Your task to perform on an android device: open sync settings in chrome Image 0: 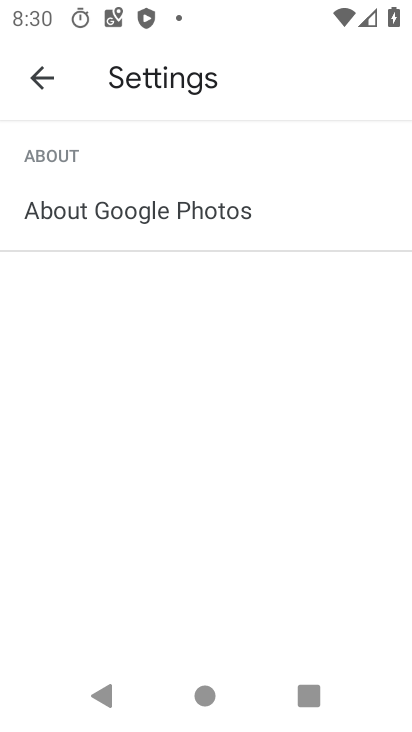
Step 0: press home button
Your task to perform on an android device: open sync settings in chrome Image 1: 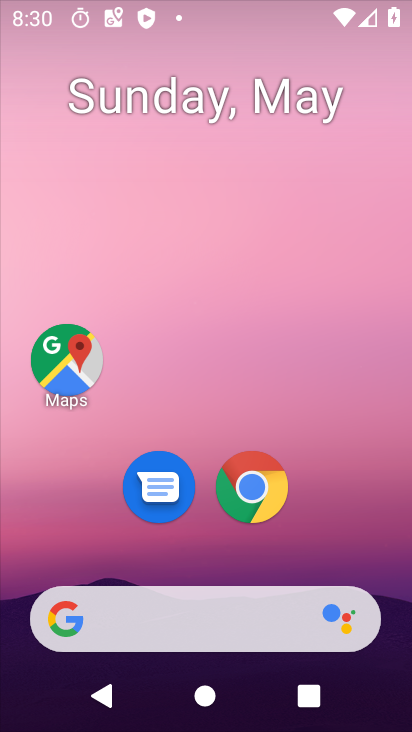
Step 1: drag from (29, 731) to (265, 217)
Your task to perform on an android device: open sync settings in chrome Image 2: 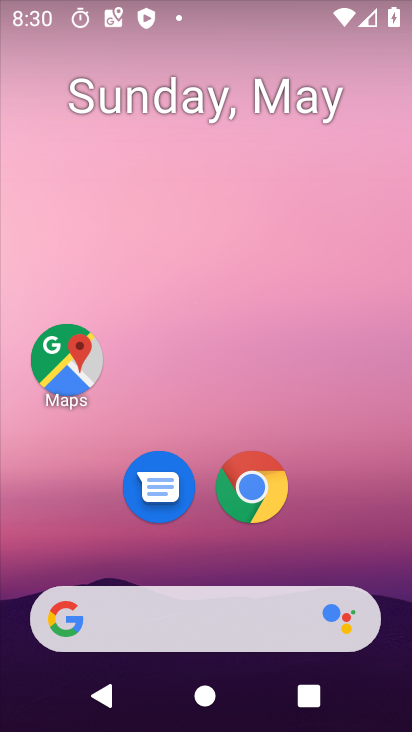
Step 2: click (252, 477)
Your task to perform on an android device: open sync settings in chrome Image 3: 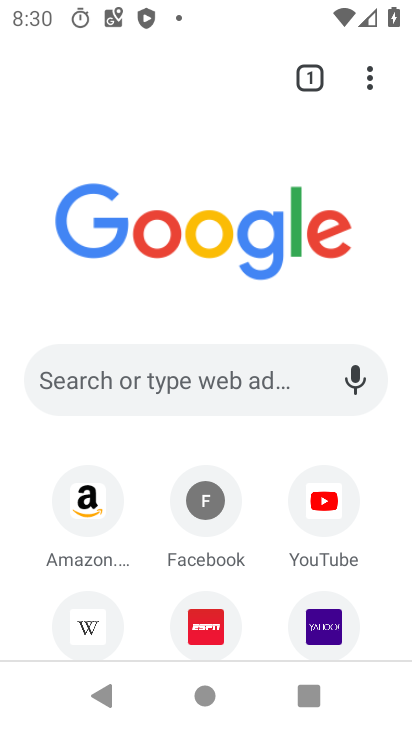
Step 3: click (370, 73)
Your task to perform on an android device: open sync settings in chrome Image 4: 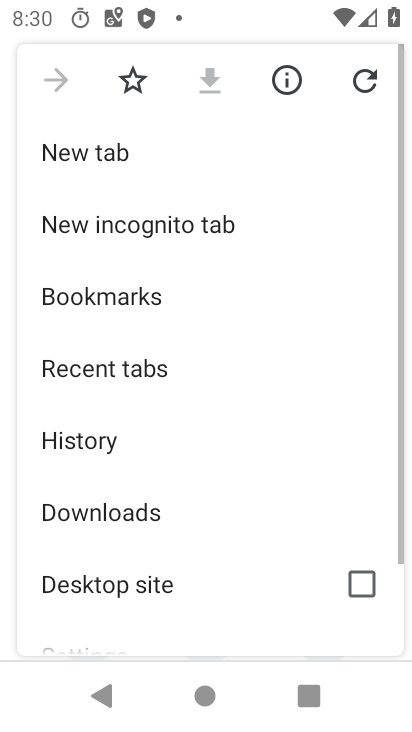
Step 4: drag from (53, 591) to (223, 115)
Your task to perform on an android device: open sync settings in chrome Image 5: 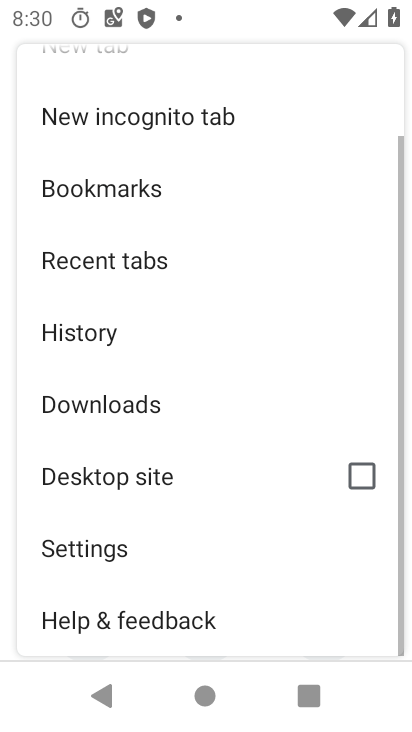
Step 5: click (78, 571)
Your task to perform on an android device: open sync settings in chrome Image 6: 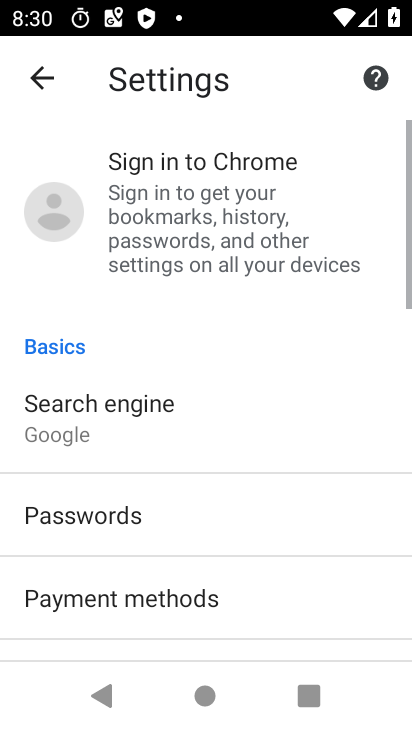
Step 6: drag from (19, 605) to (277, 171)
Your task to perform on an android device: open sync settings in chrome Image 7: 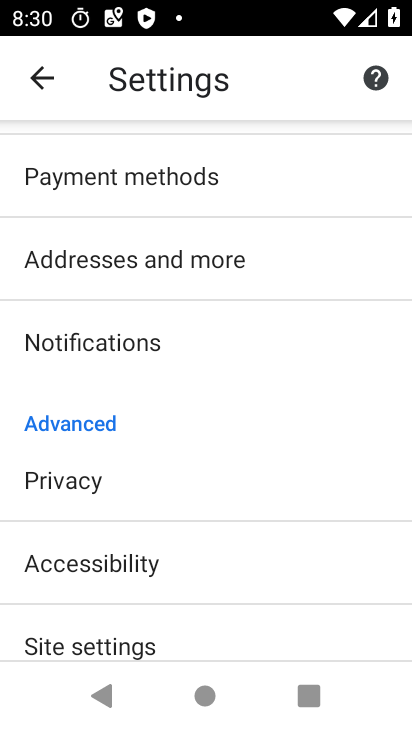
Step 7: drag from (5, 515) to (198, 95)
Your task to perform on an android device: open sync settings in chrome Image 8: 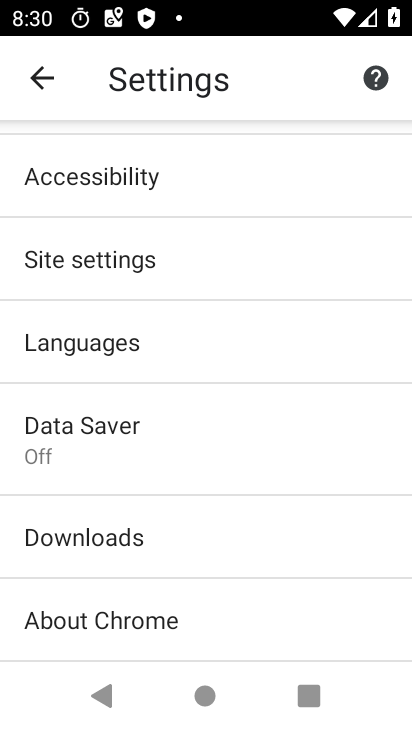
Step 8: drag from (7, 474) to (217, 129)
Your task to perform on an android device: open sync settings in chrome Image 9: 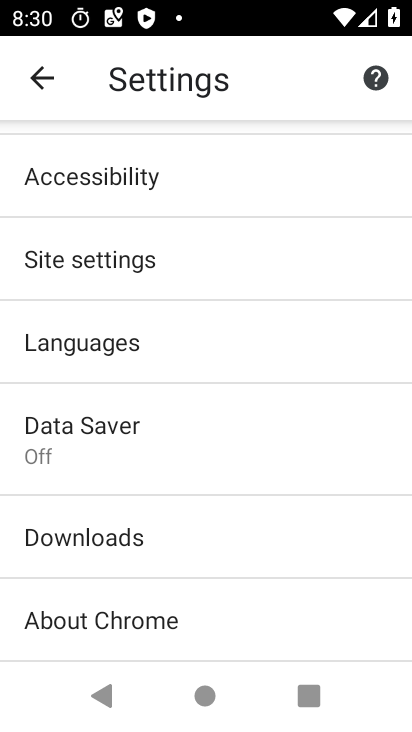
Step 9: drag from (177, 275) to (113, 615)
Your task to perform on an android device: open sync settings in chrome Image 10: 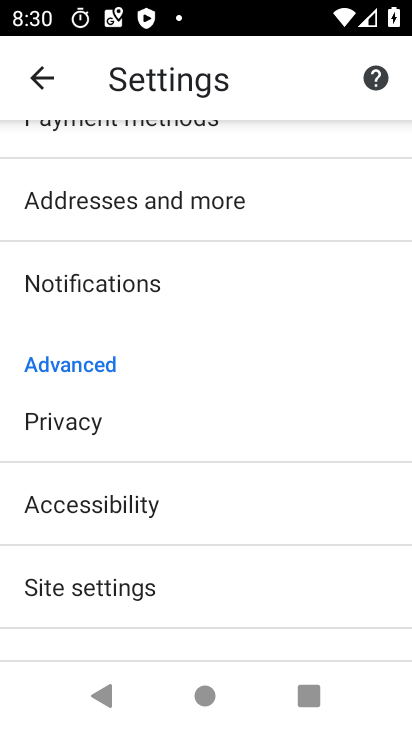
Step 10: click (112, 600)
Your task to perform on an android device: open sync settings in chrome Image 11: 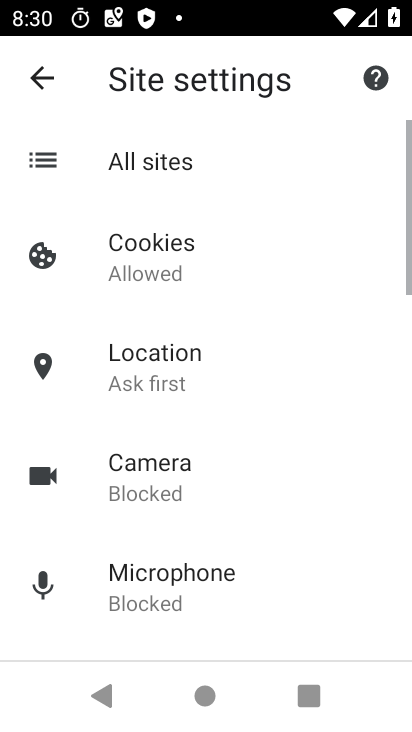
Step 11: drag from (5, 556) to (307, 103)
Your task to perform on an android device: open sync settings in chrome Image 12: 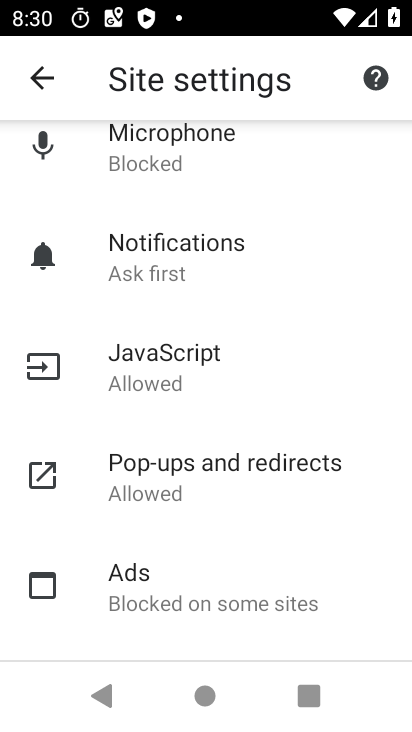
Step 12: drag from (19, 550) to (247, 161)
Your task to perform on an android device: open sync settings in chrome Image 13: 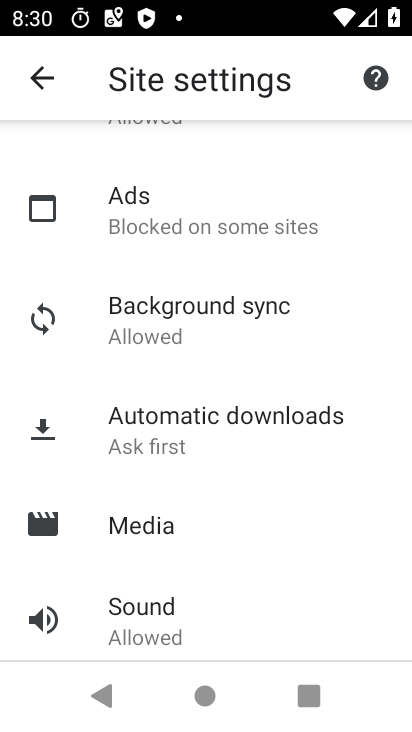
Step 13: click (225, 307)
Your task to perform on an android device: open sync settings in chrome Image 14: 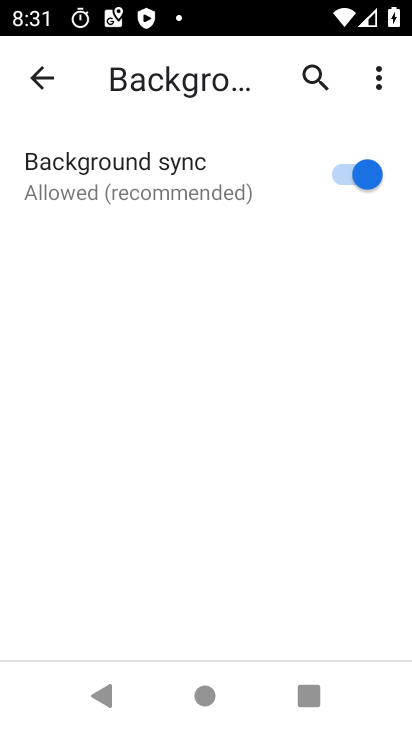
Step 14: task complete